Your task to perform on an android device: Go to notification settings Image 0: 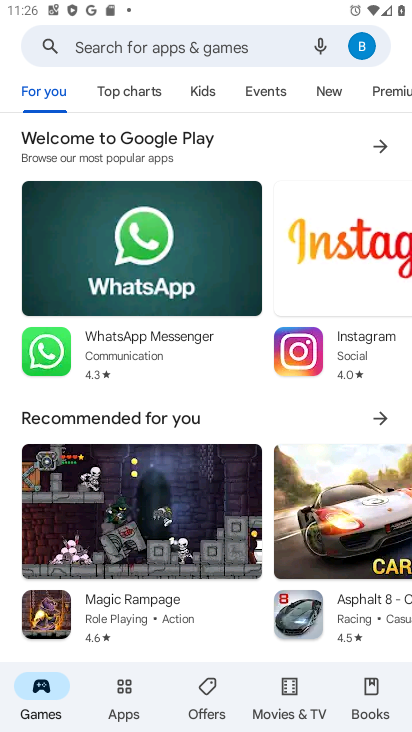
Step 0: press home button
Your task to perform on an android device: Go to notification settings Image 1: 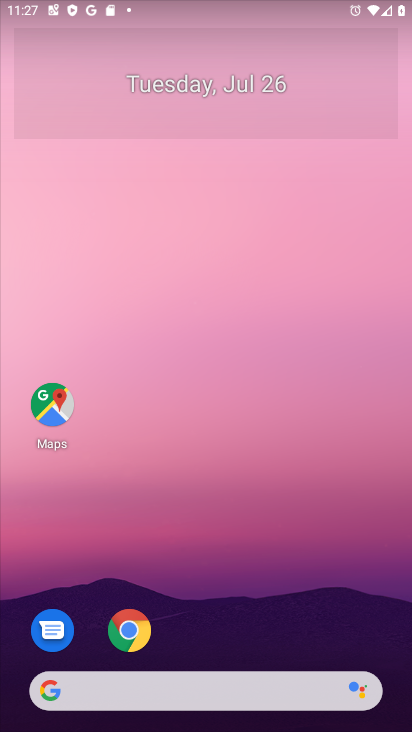
Step 1: drag from (243, 675) to (408, 7)
Your task to perform on an android device: Go to notification settings Image 2: 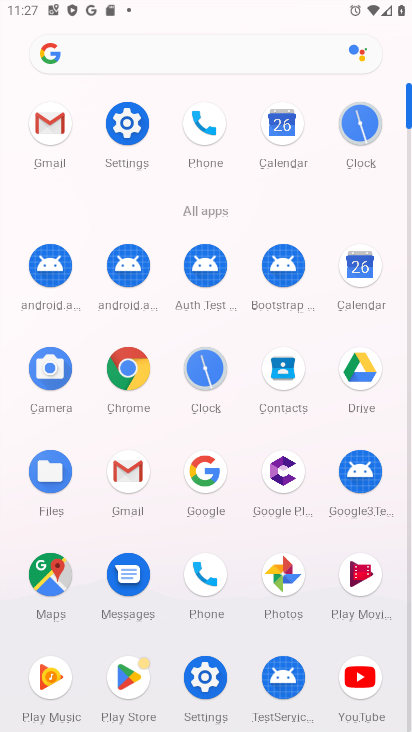
Step 2: click (133, 137)
Your task to perform on an android device: Go to notification settings Image 3: 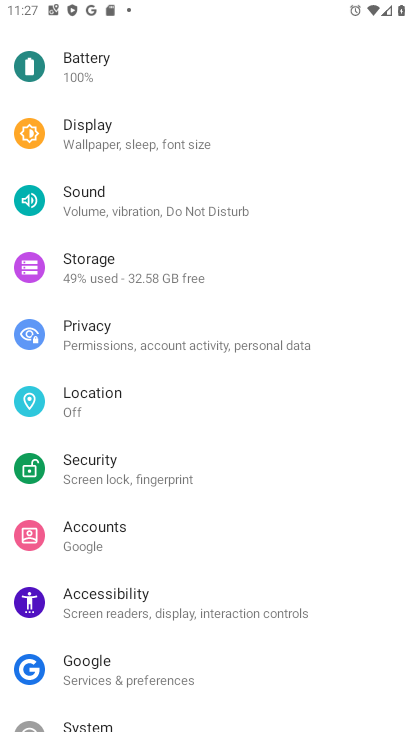
Step 3: drag from (188, 110) to (220, 726)
Your task to perform on an android device: Go to notification settings Image 4: 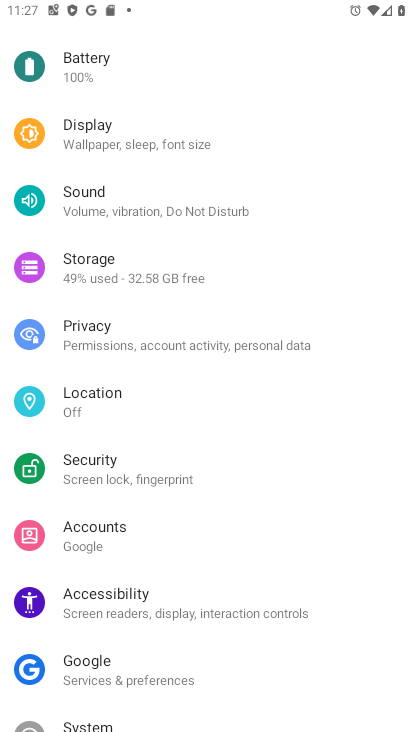
Step 4: drag from (320, 65) to (159, 717)
Your task to perform on an android device: Go to notification settings Image 5: 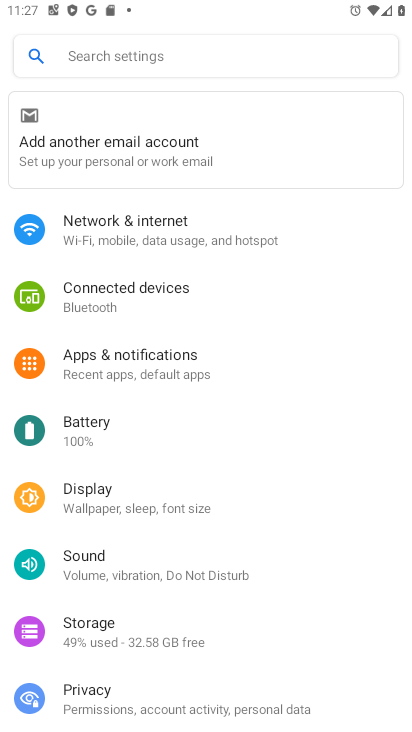
Step 5: click (166, 370)
Your task to perform on an android device: Go to notification settings Image 6: 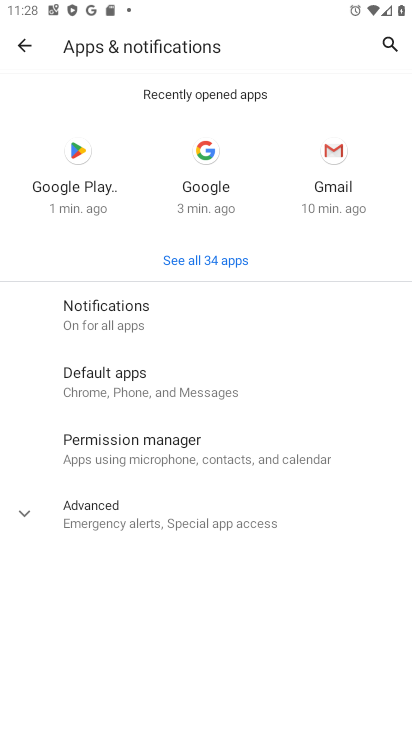
Step 6: task complete